Your task to perform on an android device: View the shopping cart on newegg. Search for razer blade on newegg, select the first entry, add it to the cart, then select checkout. Image 0: 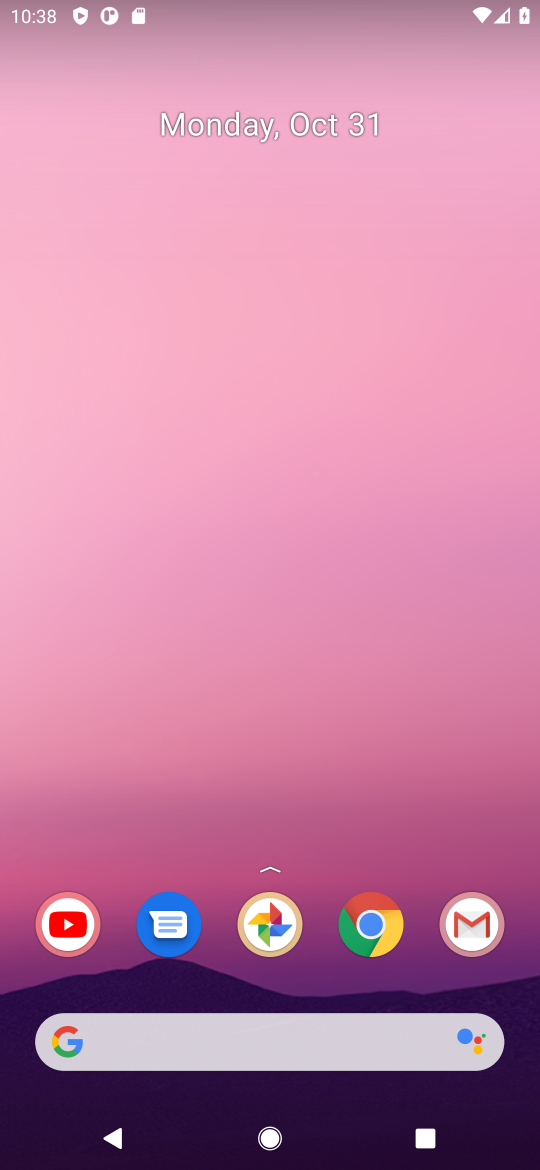
Step 0: press home button
Your task to perform on an android device: View the shopping cart on newegg. Search for razer blade on newegg, select the first entry, add it to the cart, then select checkout. Image 1: 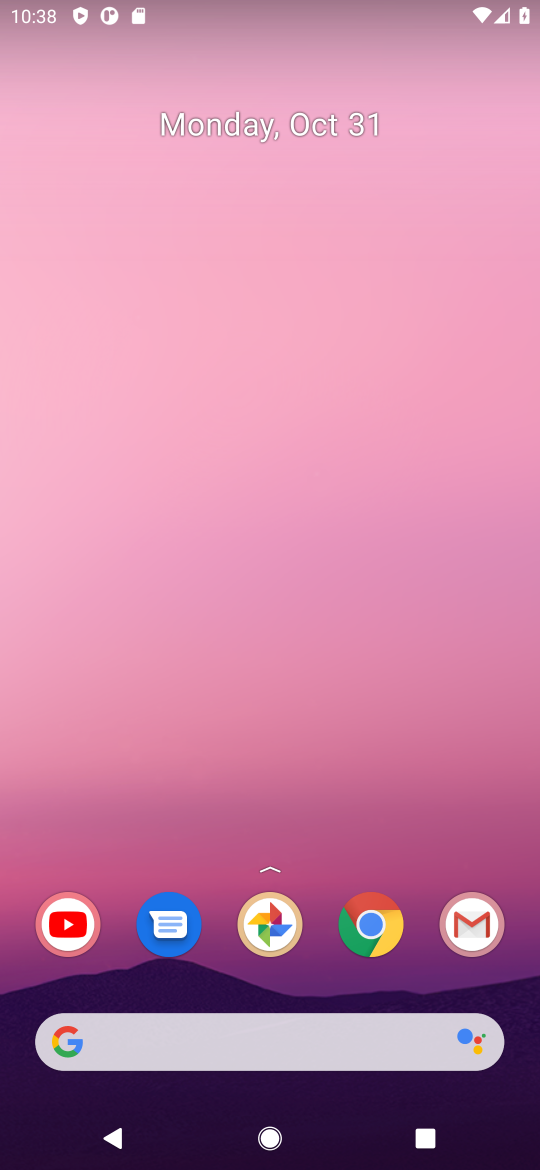
Step 1: click (355, 932)
Your task to perform on an android device: View the shopping cart on newegg. Search for razer blade on newegg, select the first entry, add it to the cart, then select checkout. Image 2: 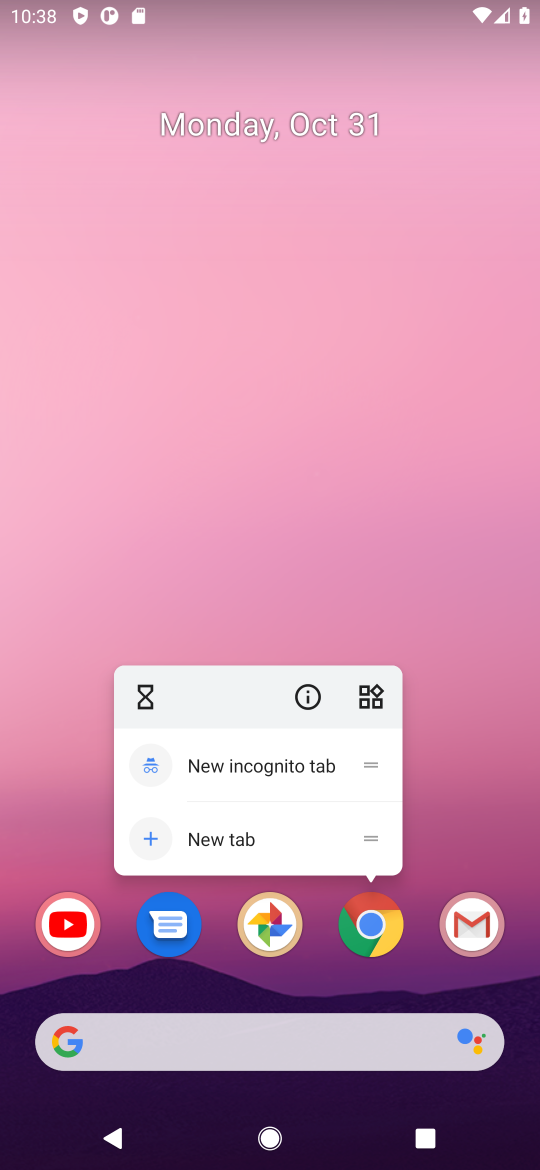
Step 2: click (267, 851)
Your task to perform on an android device: View the shopping cart on newegg. Search for razer blade on newegg, select the first entry, add it to the cart, then select checkout. Image 3: 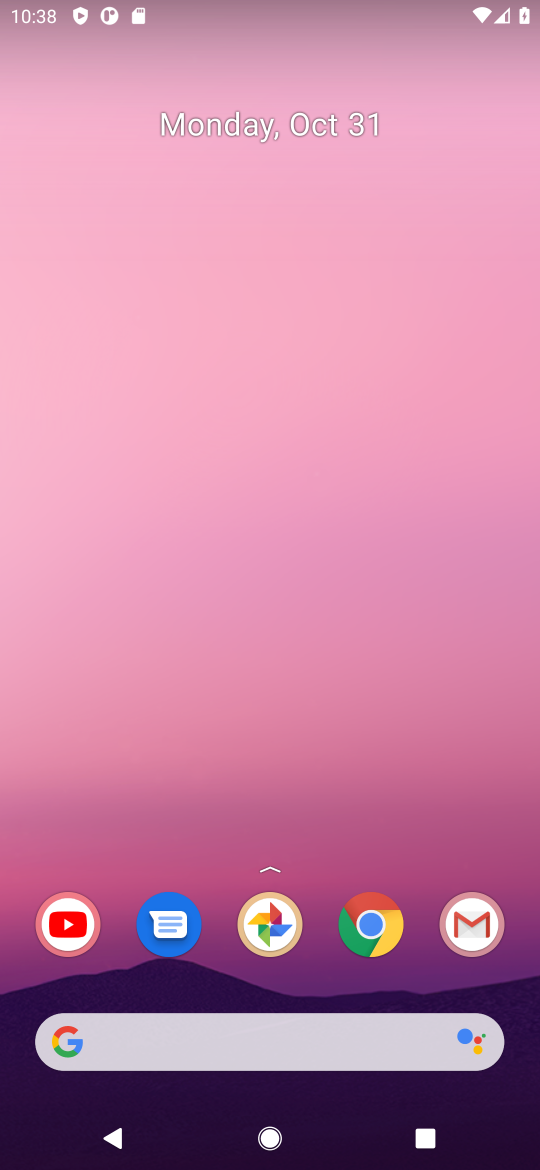
Step 3: click (370, 922)
Your task to perform on an android device: View the shopping cart on newegg. Search for razer blade on newegg, select the first entry, add it to the cart, then select checkout. Image 4: 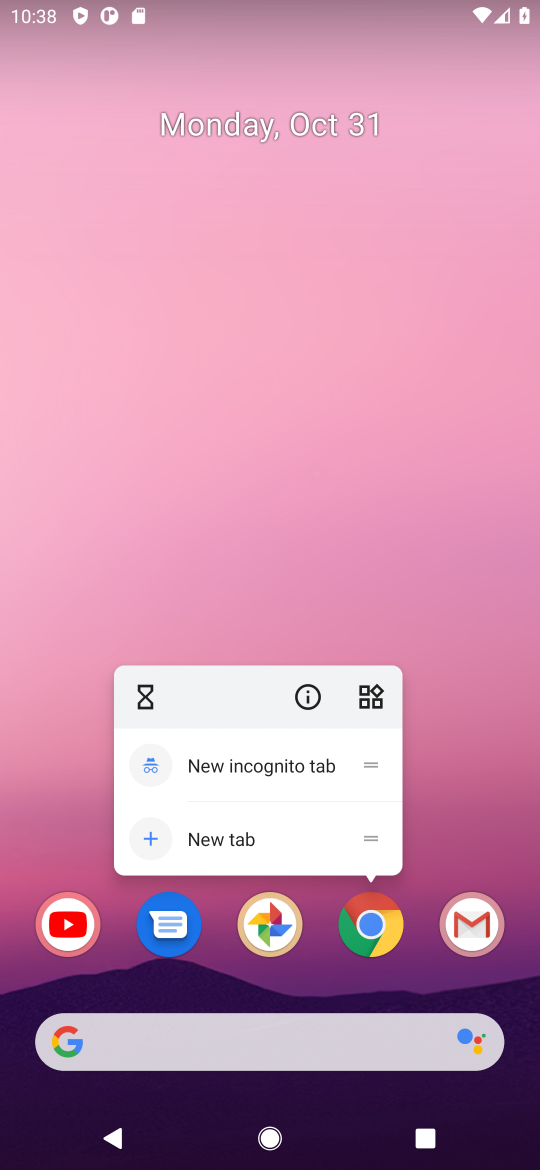
Step 4: click (159, 840)
Your task to perform on an android device: View the shopping cart on newegg. Search for razer blade on newegg, select the first entry, add it to the cart, then select checkout. Image 5: 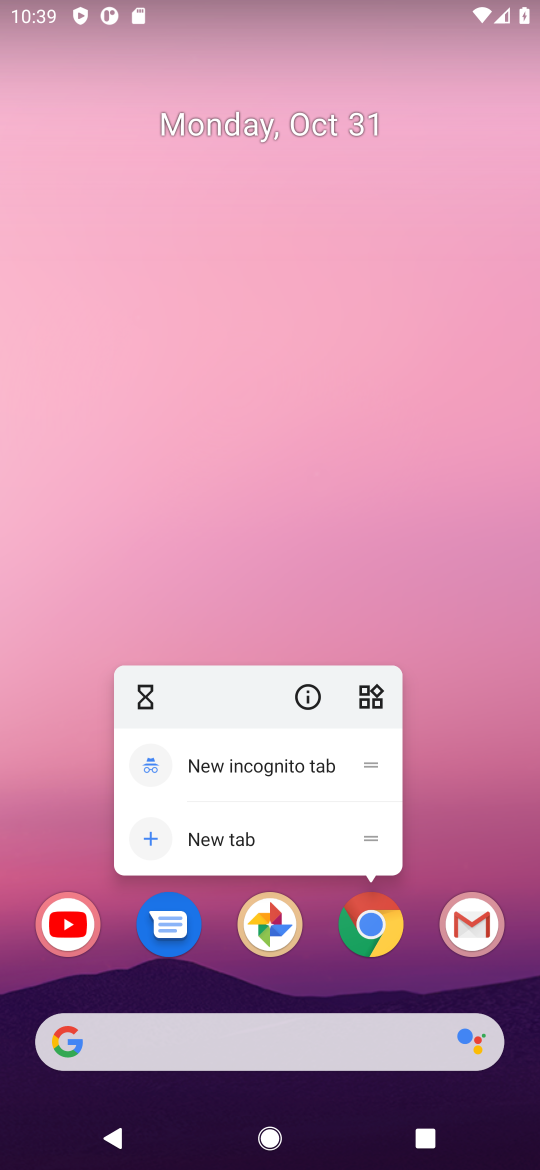
Step 5: click (237, 840)
Your task to perform on an android device: View the shopping cart on newegg. Search for razer blade on newegg, select the first entry, add it to the cart, then select checkout. Image 6: 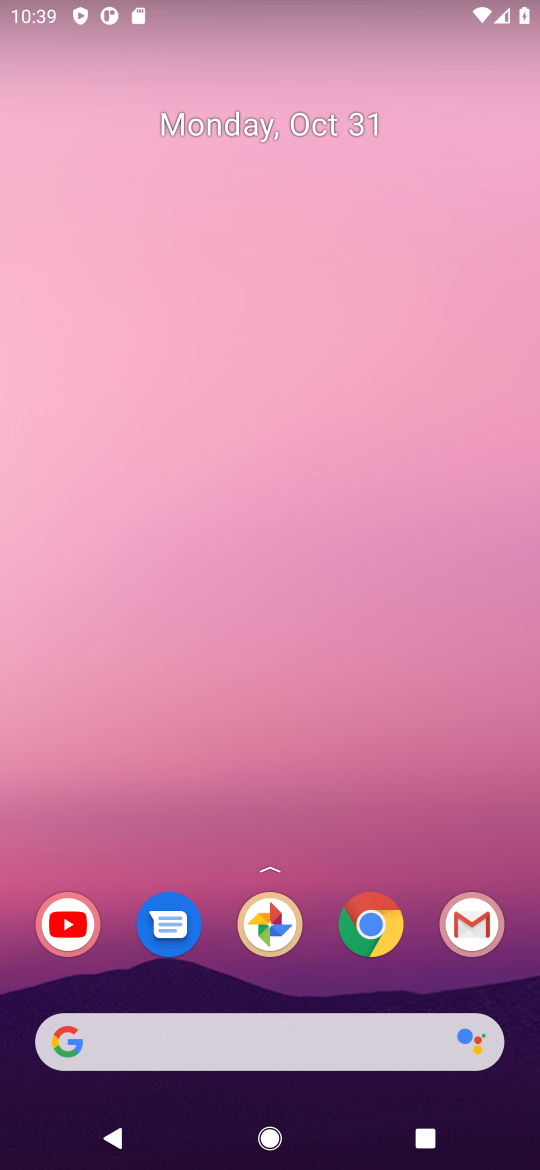
Step 6: press home button
Your task to perform on an android device: View the shopping cart on newegg. Search for razer blade on newegg, select the first entry, add it to the cart, then select checkout. Image 7: 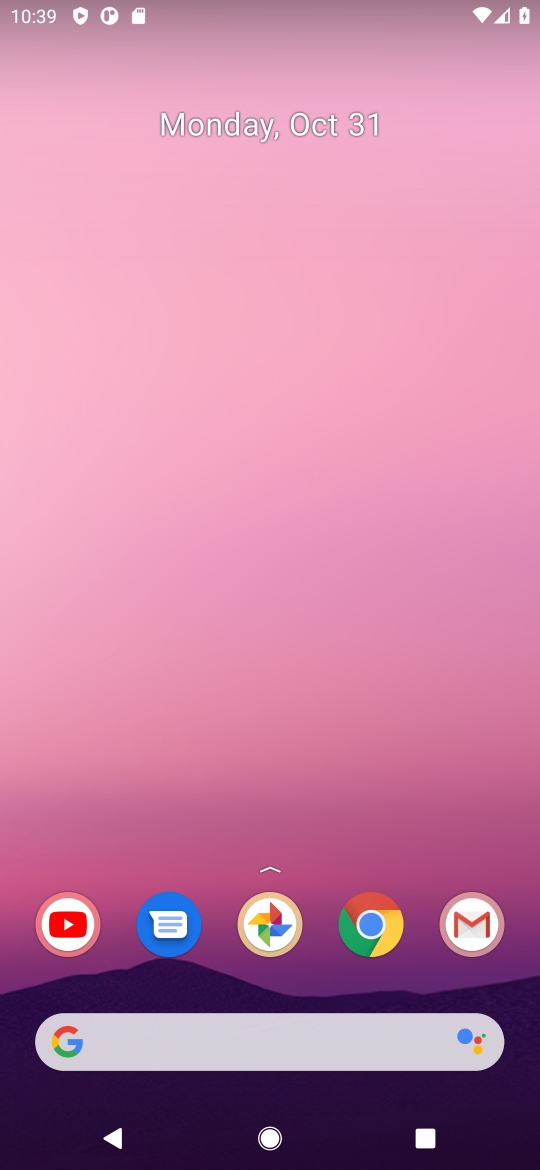
Step 7: press home button
Your task to perform on an android device: View the shopping cart on newegg. Search for razer blade on newegg, select the first entry, add it to the cart, then select checkout. Image 8: 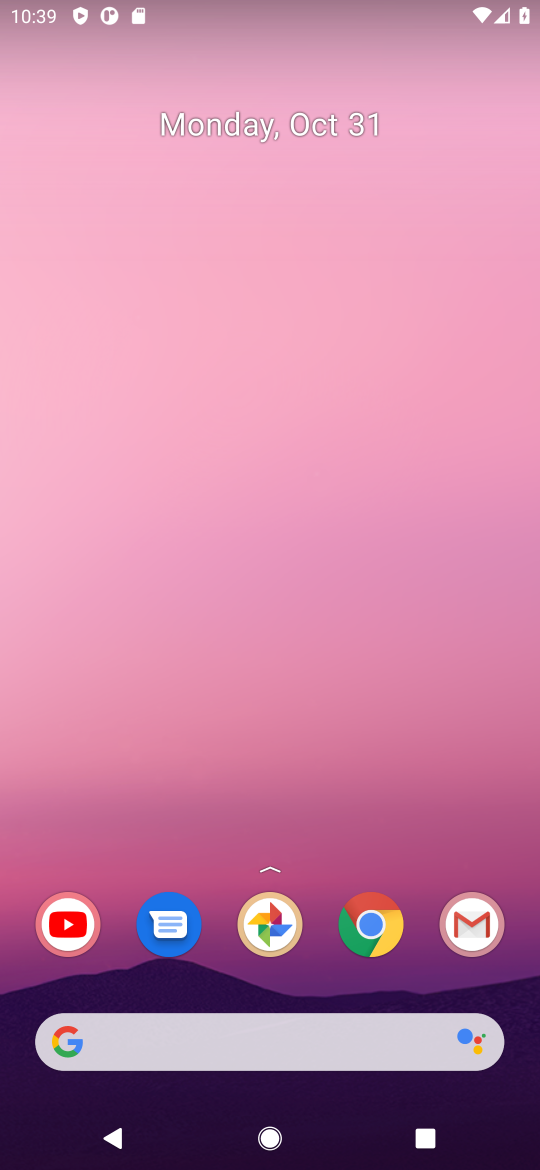
Step 8: click (384, 941)
Your task to perform on an android device: View the shopping cart on newegg. Search for razer blade on newegg, select the first entry, add it to the cart, then select checkout. Image 9: 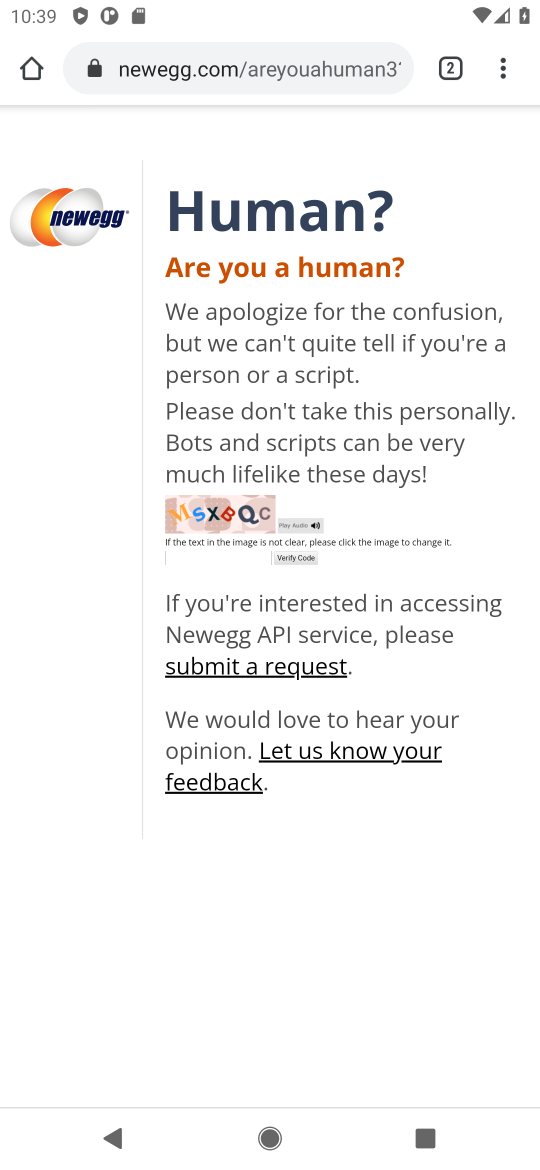
Step 9: click (510, 58)
Your task to perform on an android device: View the shopping cart on newegg. Search for razer blade on newegg, select the first entry, add it to the cart, then select checkout. Image 10: 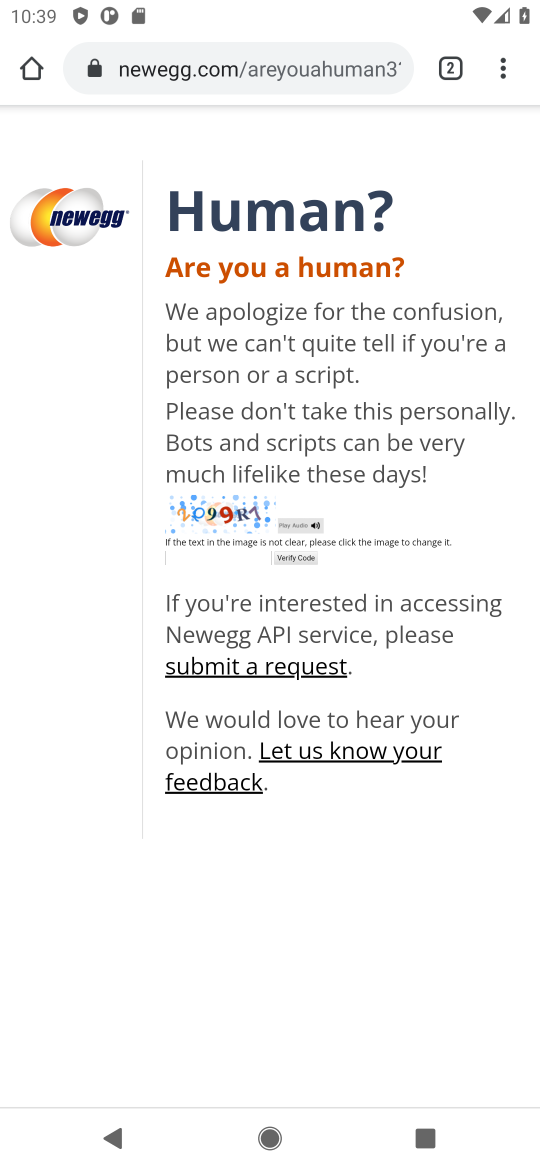
Step 10: click (285, 71)
Your task to perform on an android device: View the shopping cart on newegg. Search for razer blade on newegg, select the first entry, add it to the cart, then select checkout. Image 11: 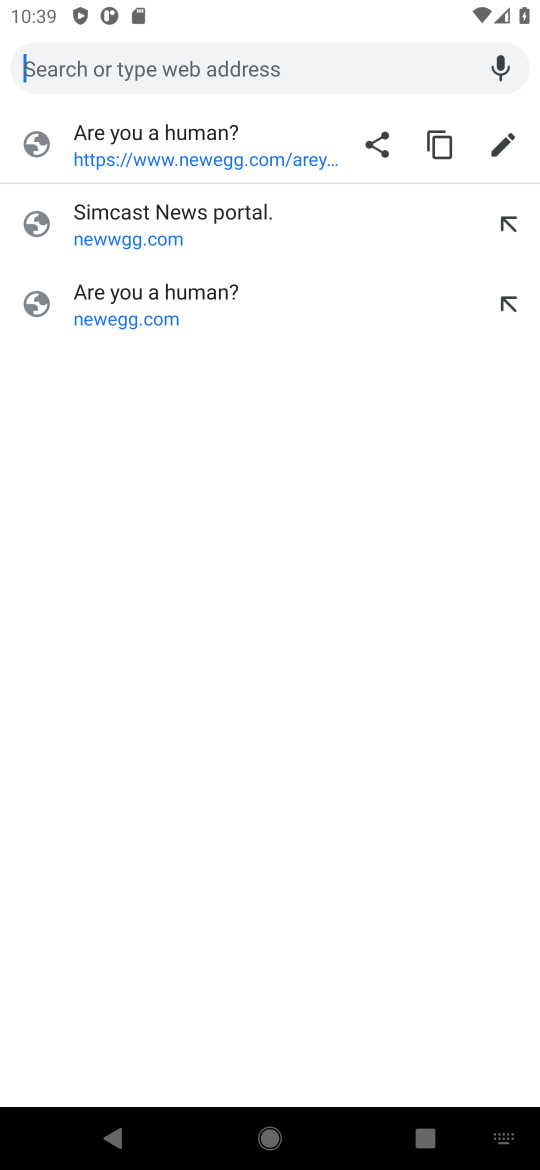
Step 11: type "newegg"
Your task to perform on an android device: View the shopping cart on newegg. Search for razer blade on newegg, select the first entry, add it to the cart, then select checkout. Image 12: 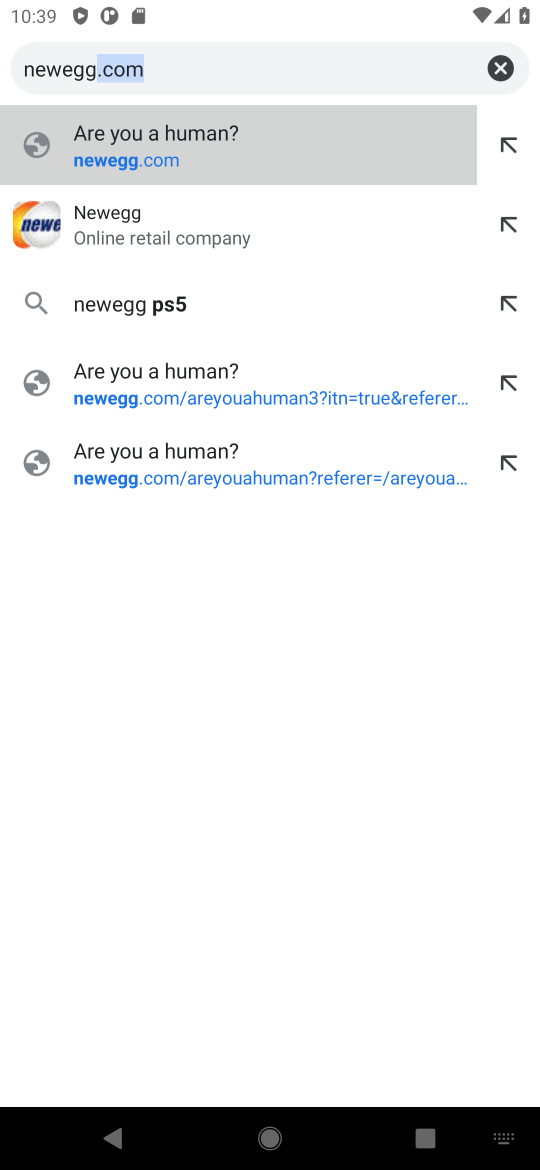
Step 12: click (66, 229)
Your task to perform on an android device: View the shopping cart on newegg. Search for razer blade on newegg, select the first entry, add it to the cart, then select checkout. Image 13: 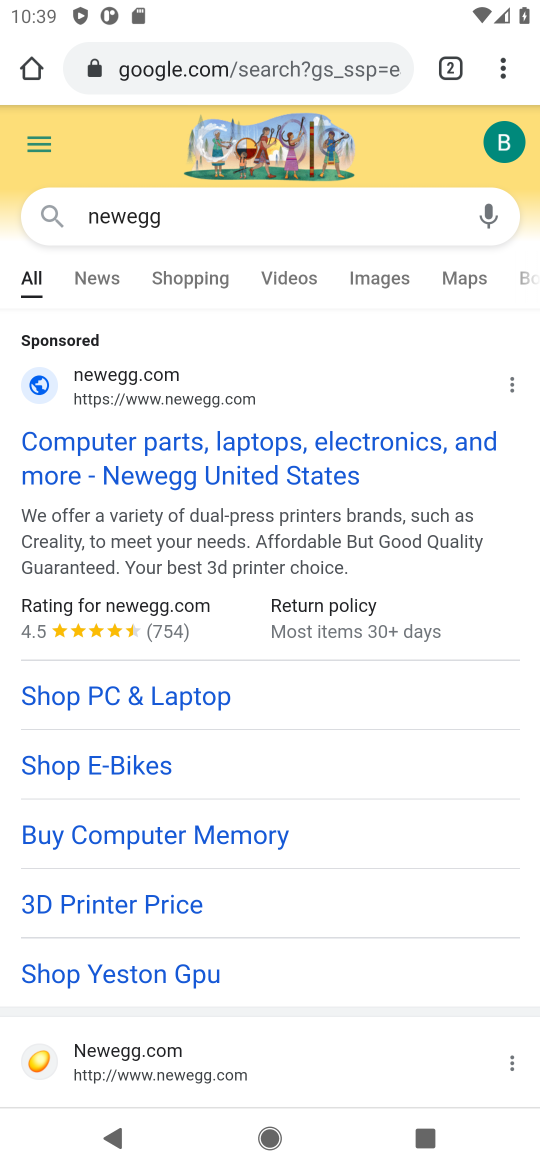
Step 13: click (140, 456)
Your task to perform on an android device: View the shopping cart on newegg. Search for razer blade on newegg, select the first entry, add it to the cart, then select checkout. Image 14: 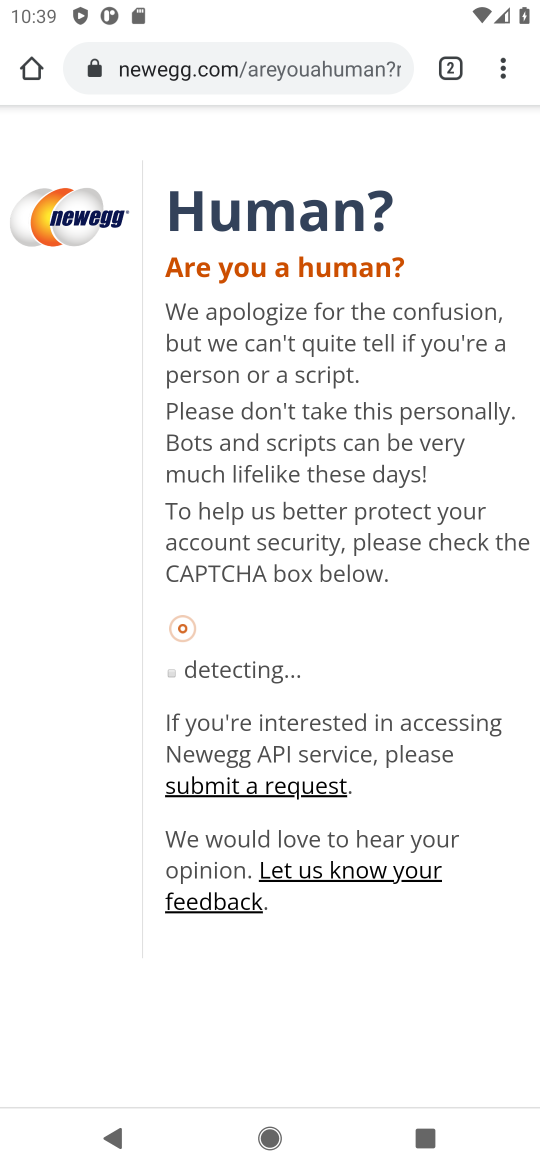
Step 14: press back button
Your task to perform on an android device: View the shopping cart on newegg. Search for razer blade on newegg, select the first entry, add it to the cart, then select checkout. Image 15: 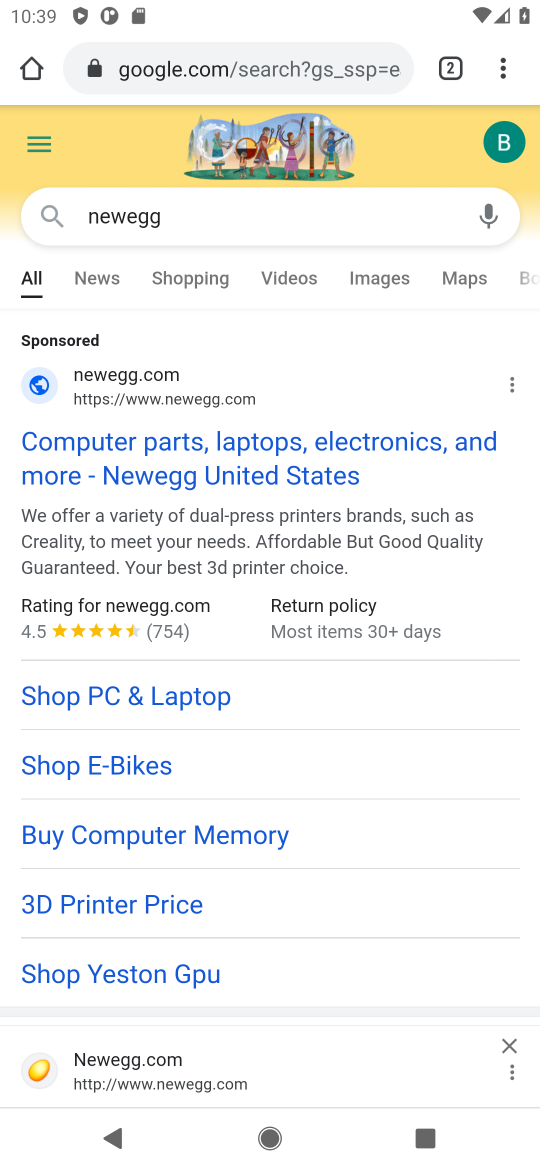
Step 15: drag from (253, 782) to (322, 393)
Your task to perform on an android device: View the shopping cart on newegg. Search for razer blade on newegg, select the first entry, add it to the cart, then select checkout. Image 16: 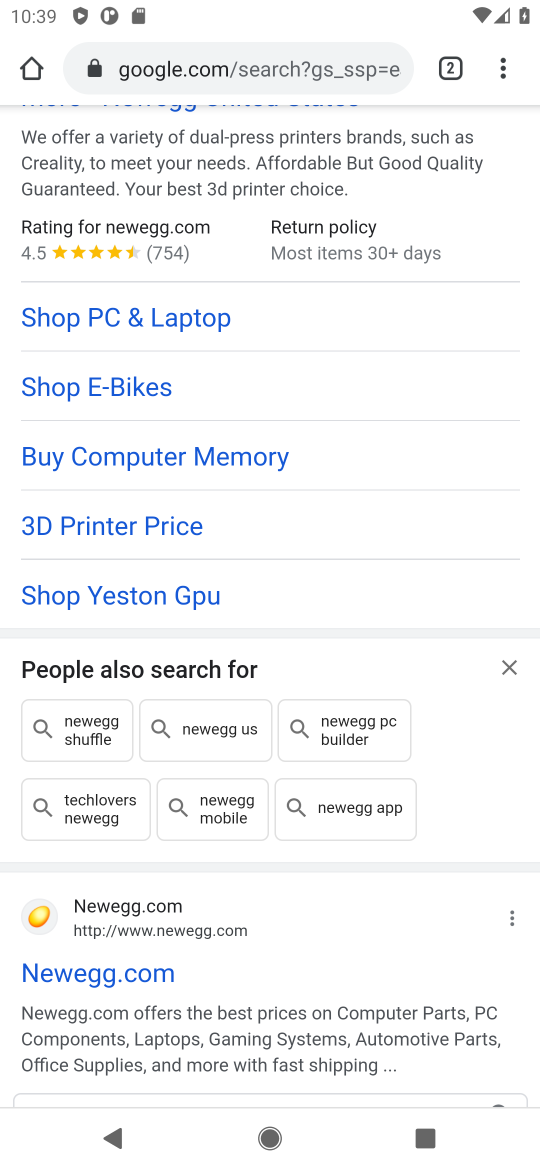
Step 16: drag from (154, 948) to (244, 643)
Your task to perform on an android device: View the shopping cart on newegg. Search for razer blade on newegg, select the first entry, add it to the cart, then select checkout. Image 17: 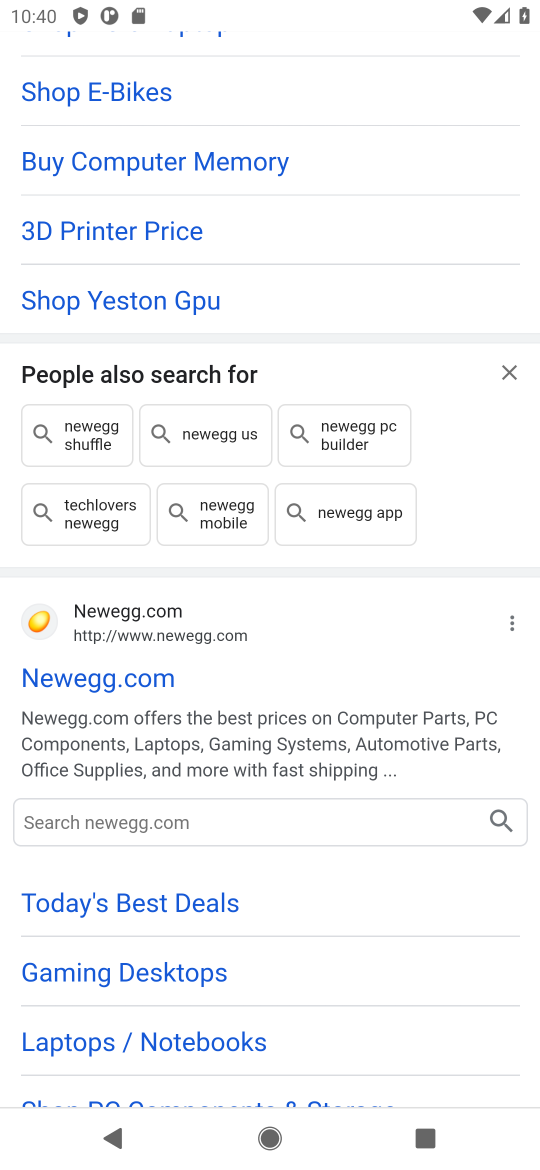
Step 17: click (94, 680)
Your task to perform on an android device: View the shopping cart on newegg. Search for razer blade on newegg, select the first entry, add it to the cart, then select checkout. Image 18: 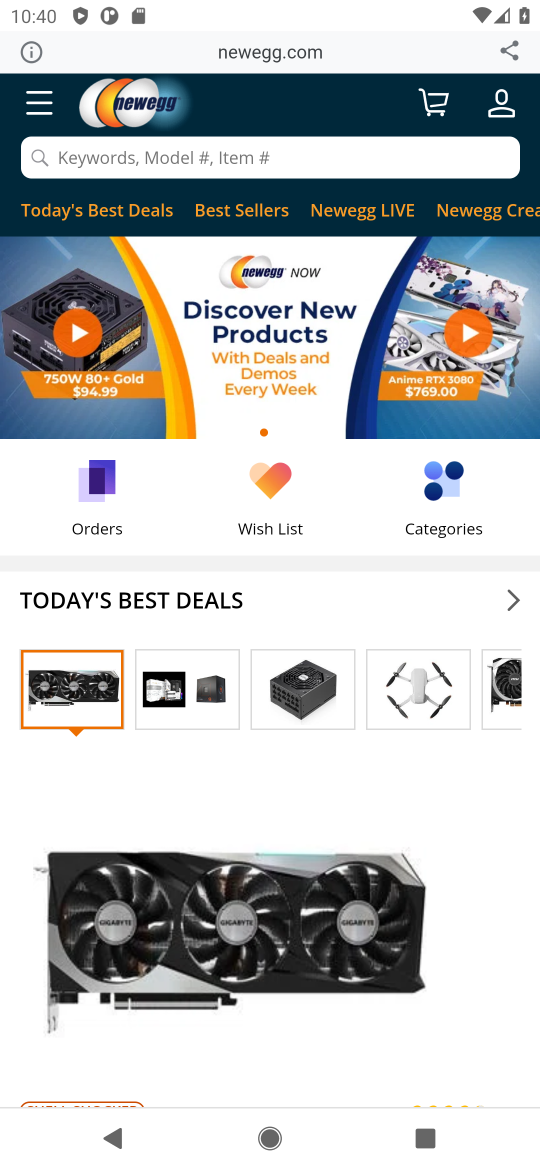
Step 18: click (118, 152)
Your task to perform on an android device: View the shopping cart on newegg. Search for razer blade on newegg, select the first entry, add it to the cart, then select checkout. Image 19: 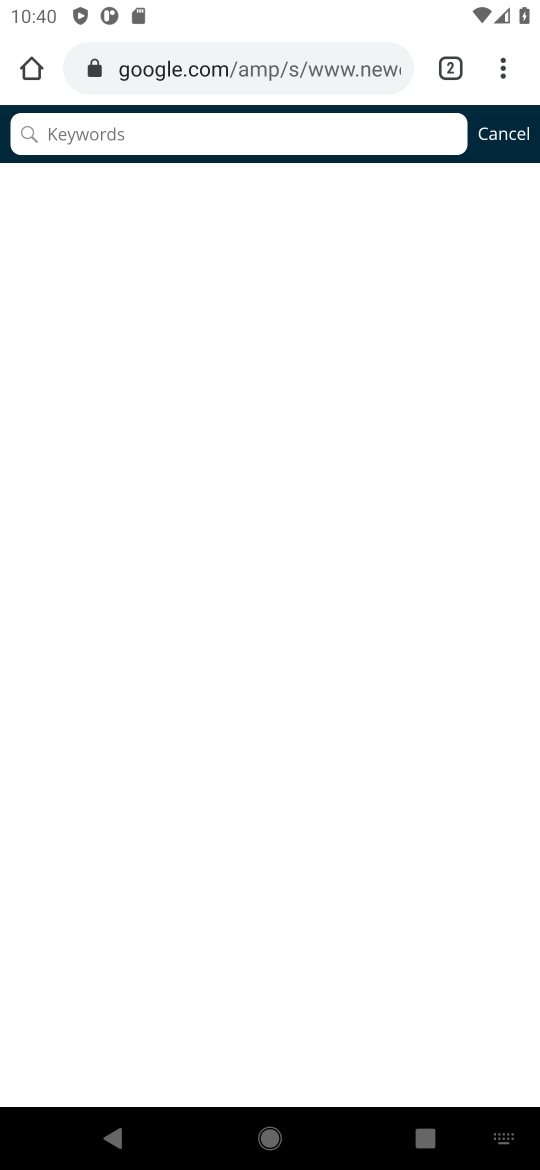
Step 19: type "razer blade"
Your task to perform on an android device: View the shopping cart on newegg. Search for razer blade on newegg, select the first entry, add it to the cart, then select checkout. Image 20: 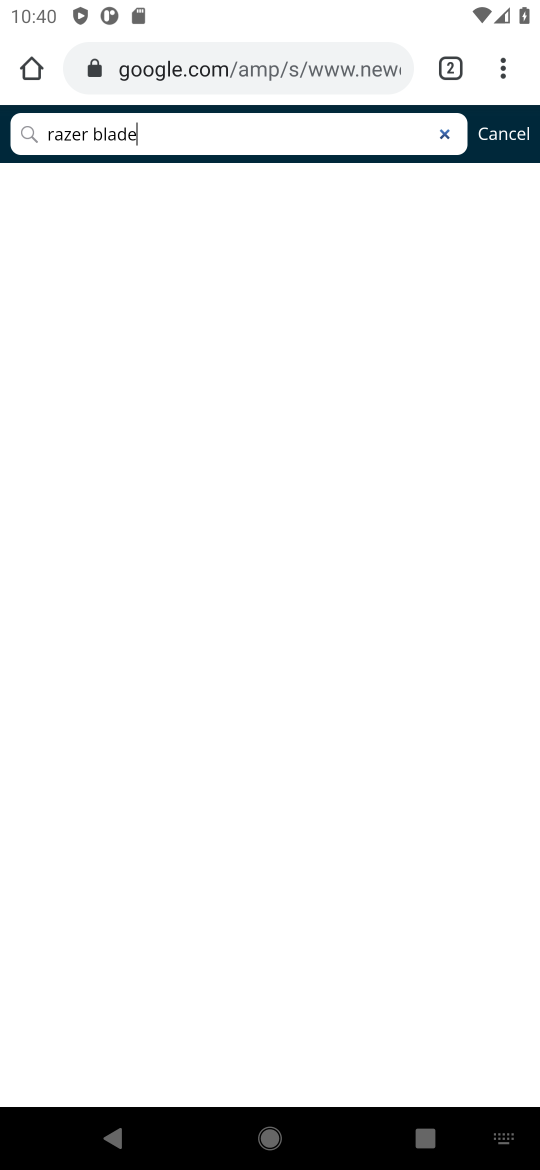
Step 20: click (445, 138)
Your task to perform on an android device: View the shopping cart on newegg. Search for razer blade on newegg, select the first entry, add it to the cart, then select checkout. Image 21: 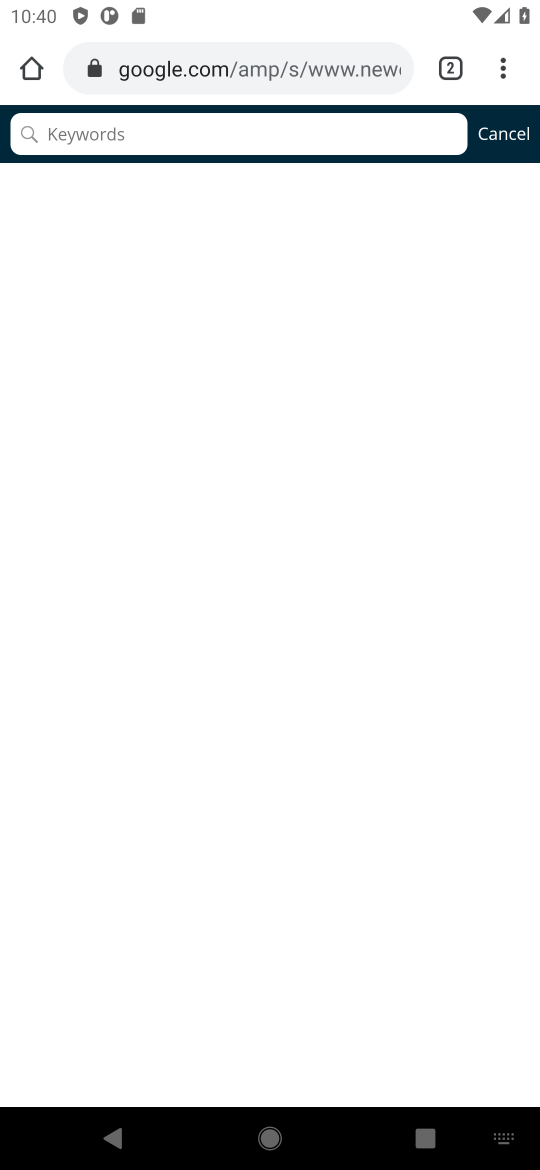
Step 21: type "razer blade"
Your task to perform on an android device: View the shopping cart on newegg. Search for razer blade on newegg, select the first entry, add it to the cart, then select checkout. Image 22: 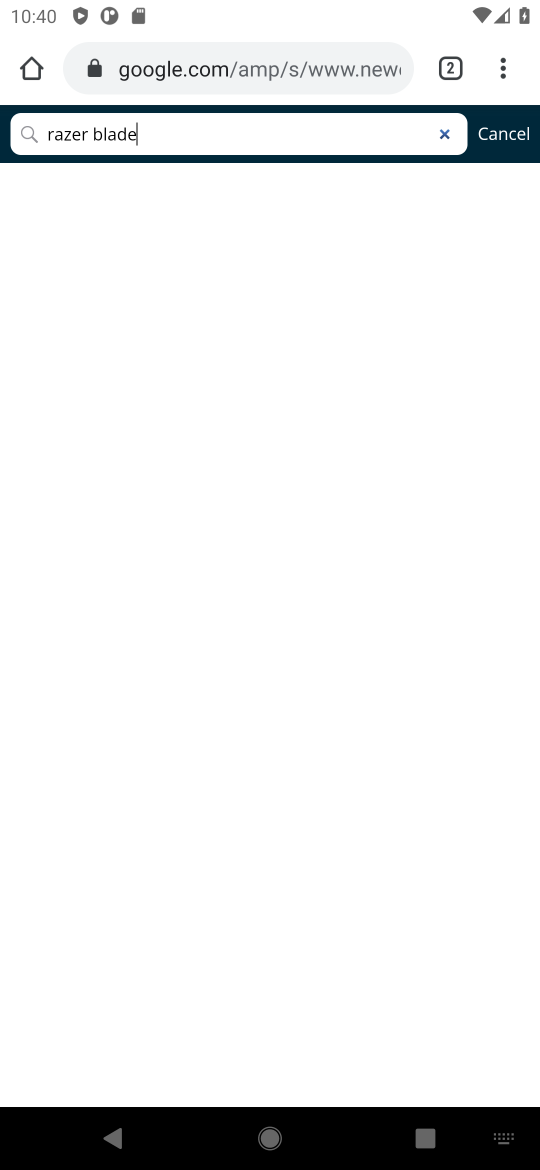
Step 22: type ""
Your task to perform on an android device: View the shopping cart on newegg. Search for razer blade on newegg, select the first entry, add it to the cart, then select checkout. Image 23: 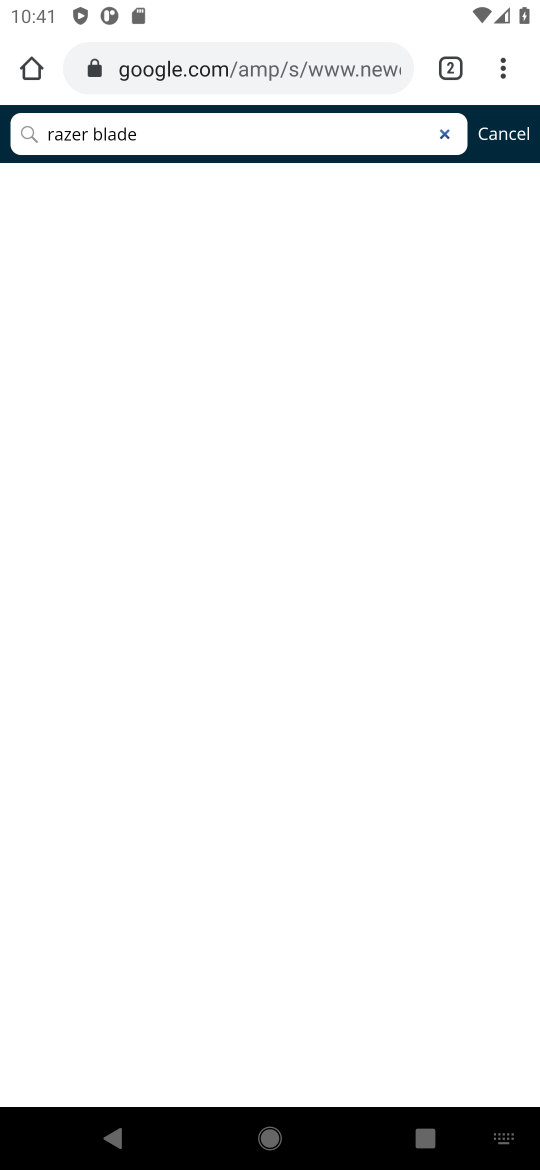
Step 23: click (144, 131)
Your task to perform on an android device: View the shopping cart on newegg. Search for razer blade on newegg, select the first entry, add it to the cart, then select checkout. Image 24: 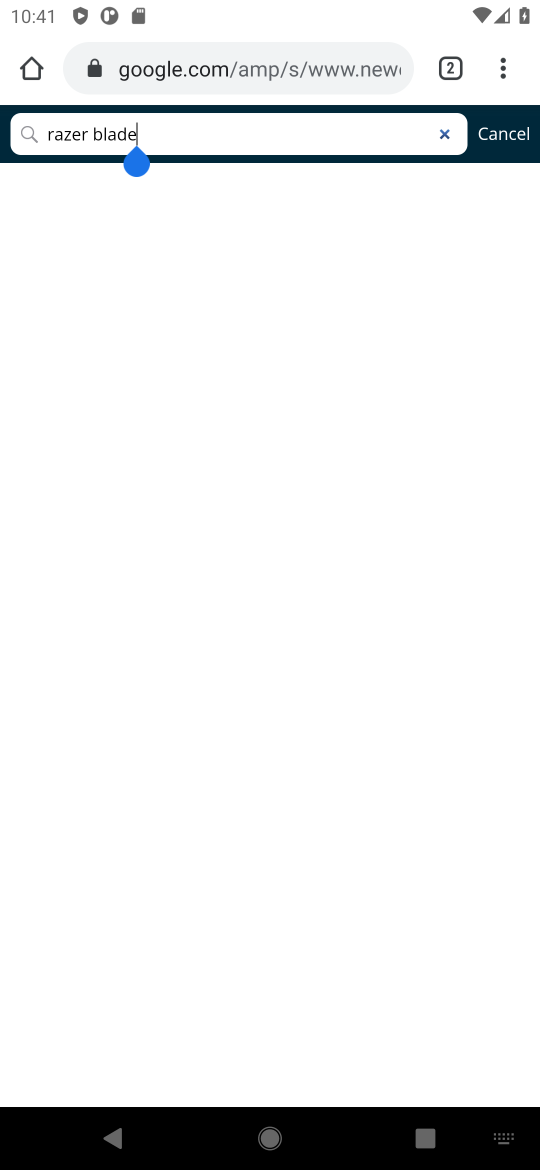
Step 24: press back button
Your task to perform on an android device: View the shopping cart on newegg. Search for razer blade on newegg, select the first entry, add it to the cart, then select checkout. Image 25: 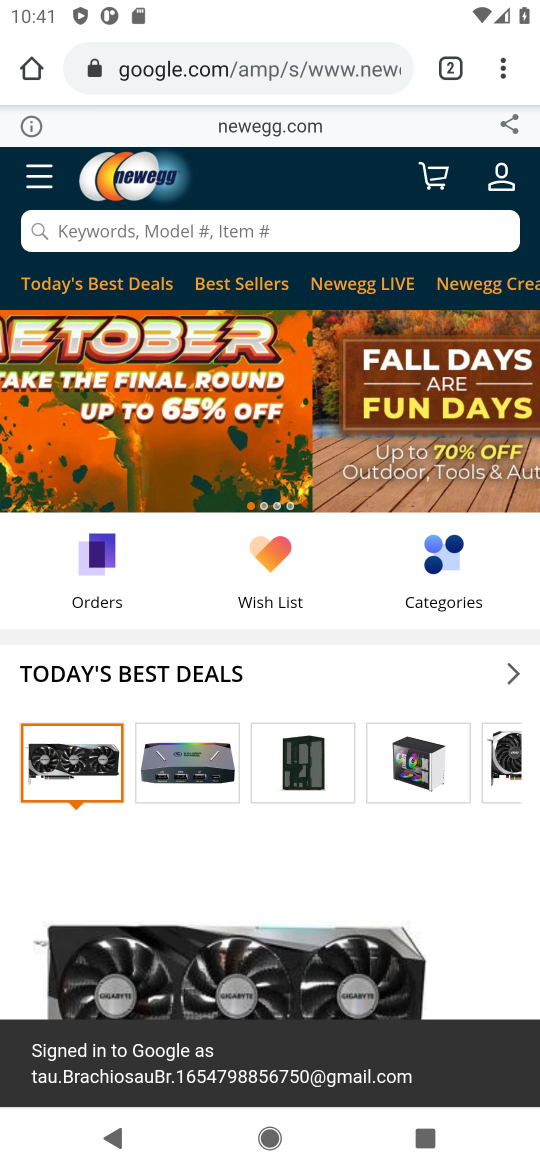
Step 25: press back button
Your task to perform on an android device: View the shopping cart on newegg. Search for razer blade on newegg, select the first entry, add it to the cart, then select checkout. Image 26: 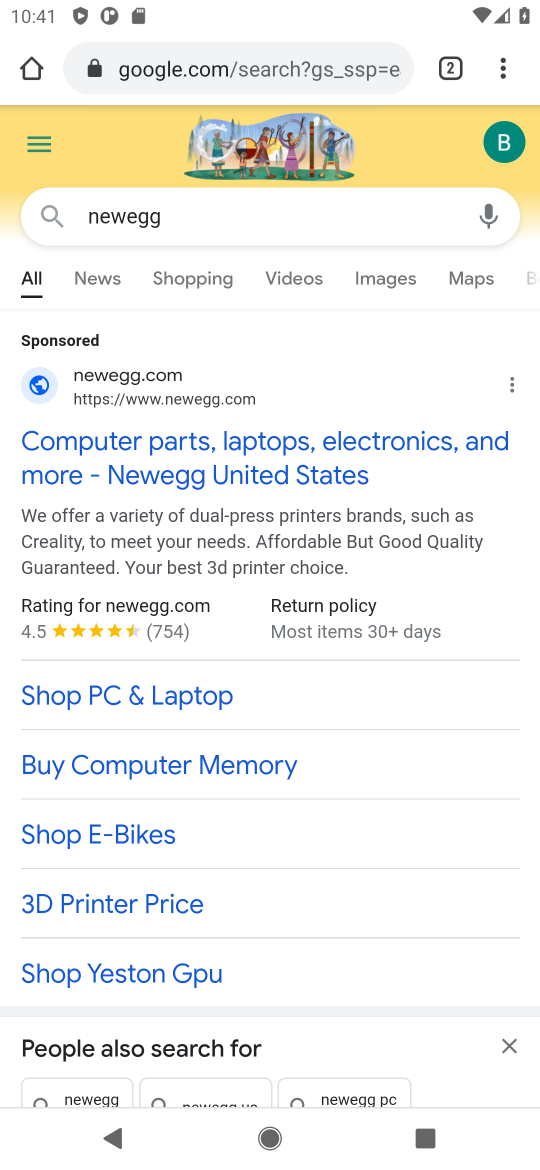
Step 26: drag from (196, 882) to (281, 414)
Your task to perform on an android device: View the shopping cart on newegg. Search for razer blade on newegg, select the first entry, add it to the cart, then select checkout. Image 27: 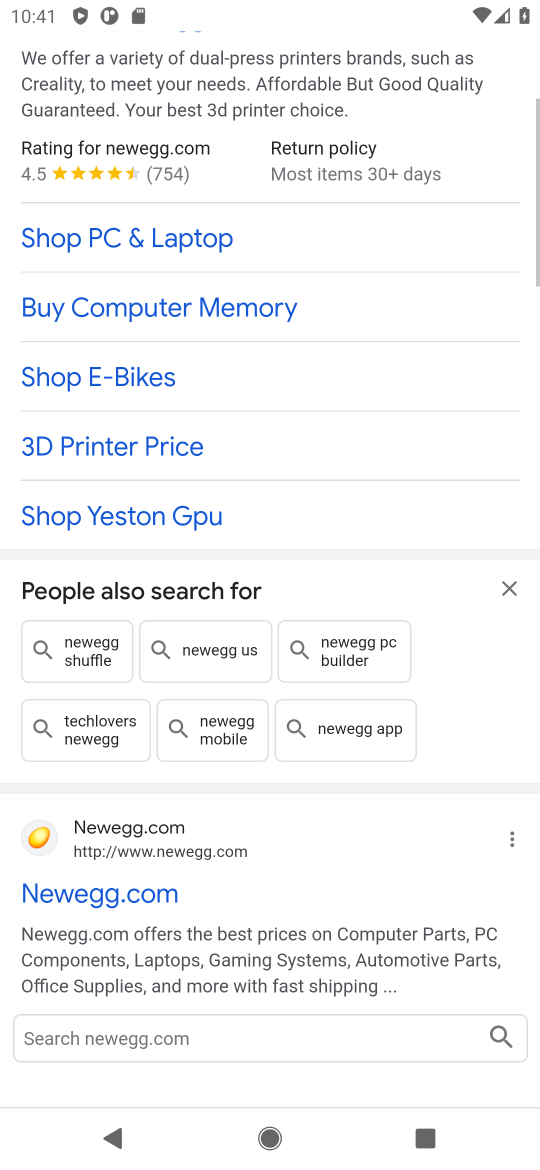
Step 27: drag from (241, 901) to (308, 635)
Your task to perform on an android device: View the shopping cart on newegg. Search for razer blade on newegg, select the first entry, add it to the cart, then select checkout. Image 28: 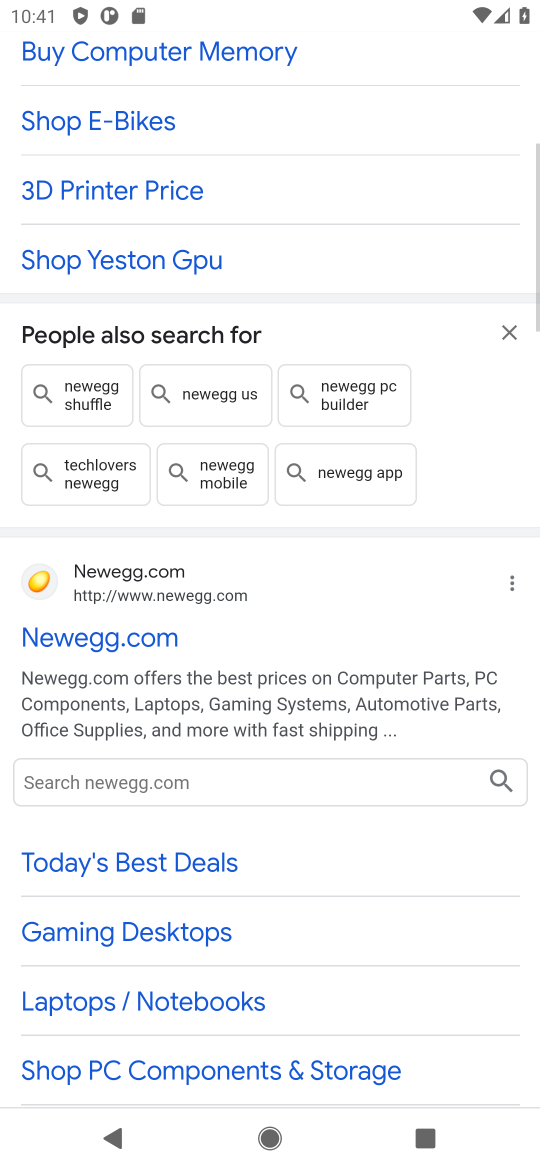
Step 28: drag from (202, 1002) to (300, 588)
Your task to perform on an android device: View the shopping cart on newegg. Search for razer blade on newegg, select the first entry, add it to the cart, then select checkout. Image 29: 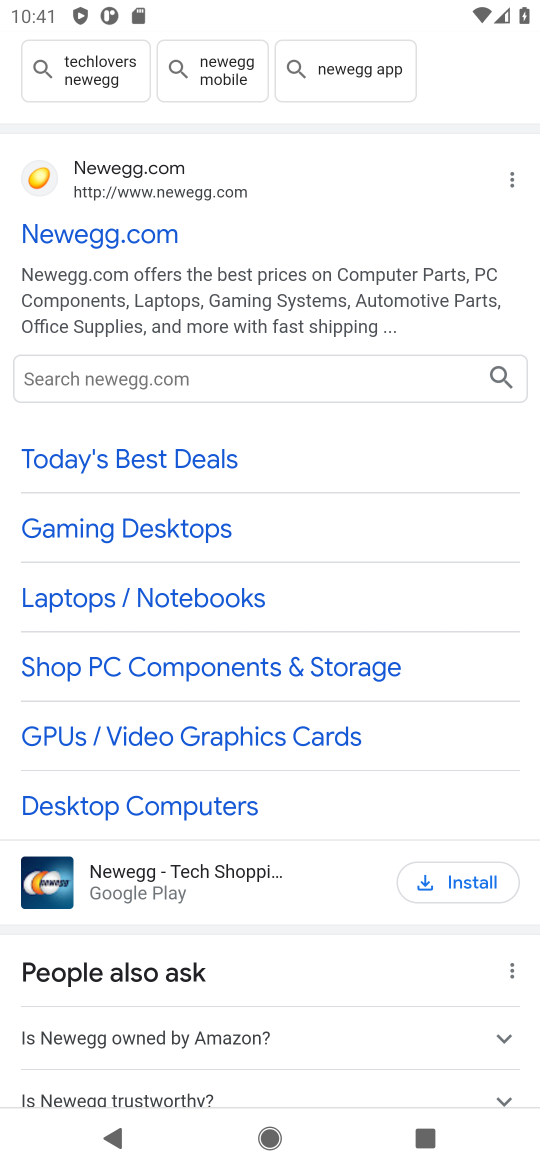
Step 29: drag from (223, 955) to (307, 698)
Your task to perform on an android device: View the shopping cart on newegg. Search for razer blade on newegg, select the first entry, add it to the cart, then select checkout. Image 30: 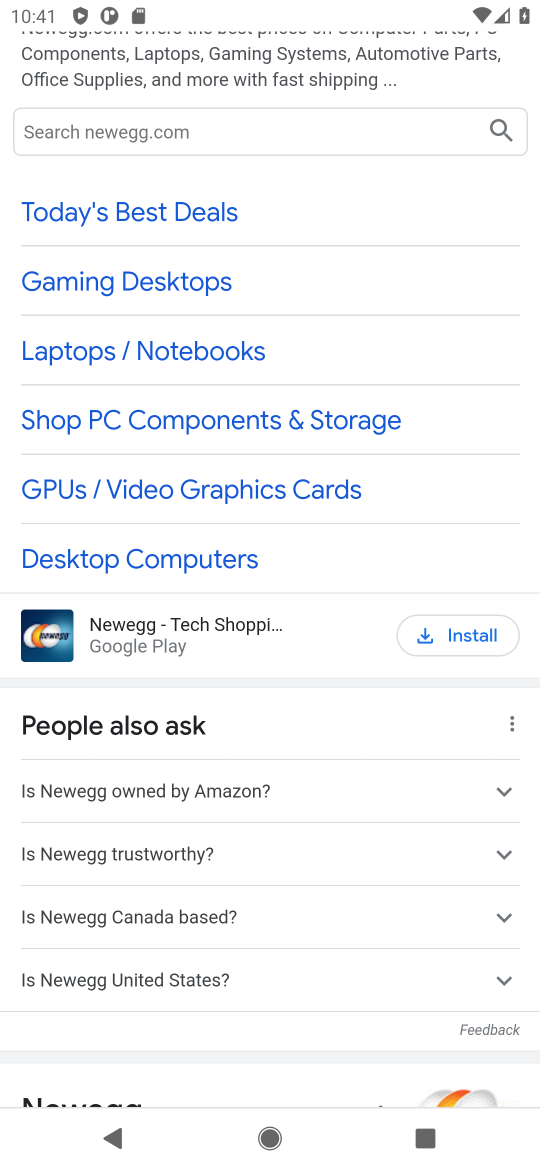
Step 30: drag from (215, 913) to (288, 631)
Your task to perform on an android device: View the shopping cart on newegg. Search for razer blade on newegg, select the first entry, add it to the cart, then select checkout. Image 31: 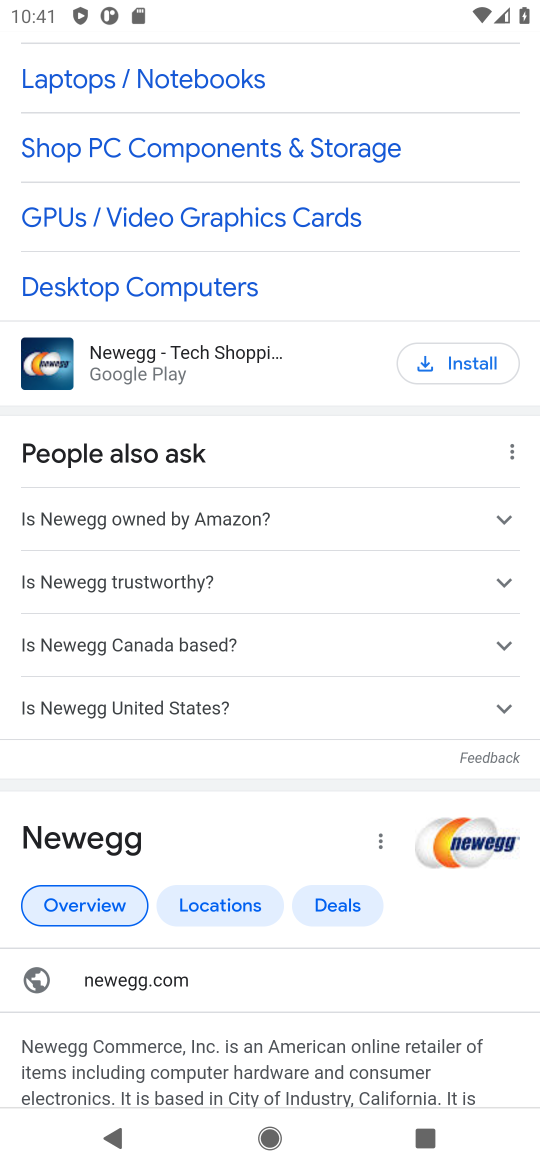
Step 31: drag from (324, 906) to (372, 619)
Your task to perform on an android device: View the shopping cart on newegg. Search for razer blade on newegg, select the first entry, add it to the cart, then select checkout. Image 32: 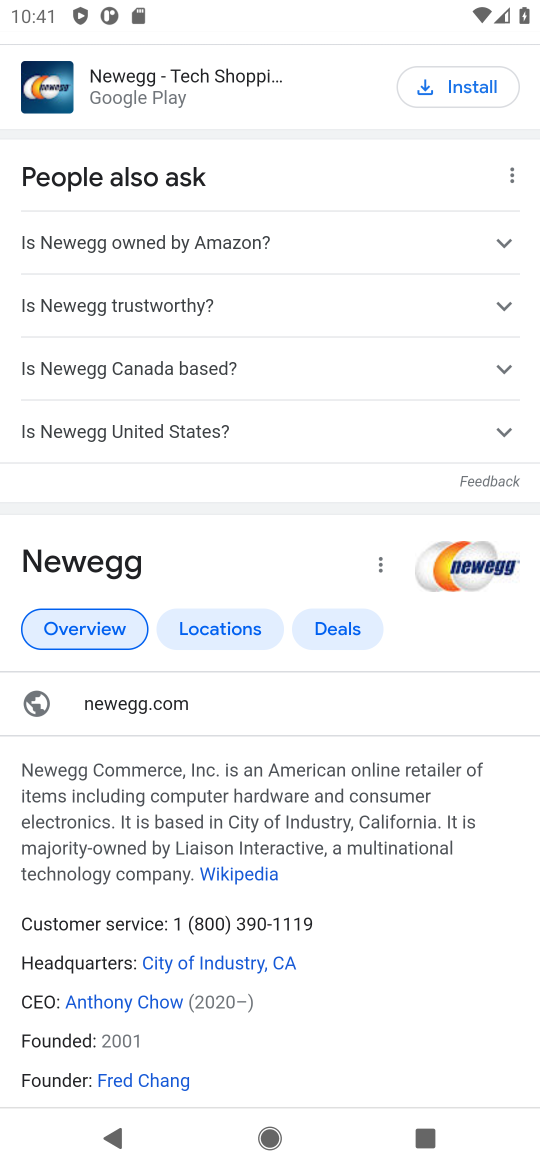
Step 32: drag from (252, 1001) to (318, 861)
Your task to perform on an android device: View the shopping cart on newegg. Search for razer blade on newegg, select the first entry, add it to the cart, then select checkout. Image 33: 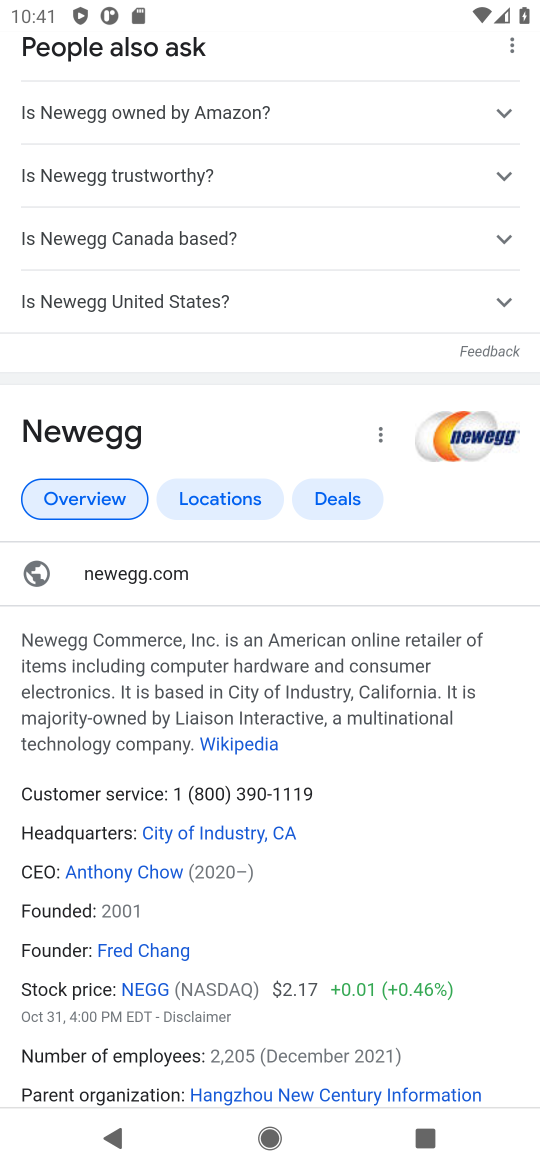
Step 33: click (99, 425)
Your task to perform on an android device: View the shopping cart on newegg. Search for razer blade on newegg, select the first entry, add it to the cart, then select checkout. Image 34: 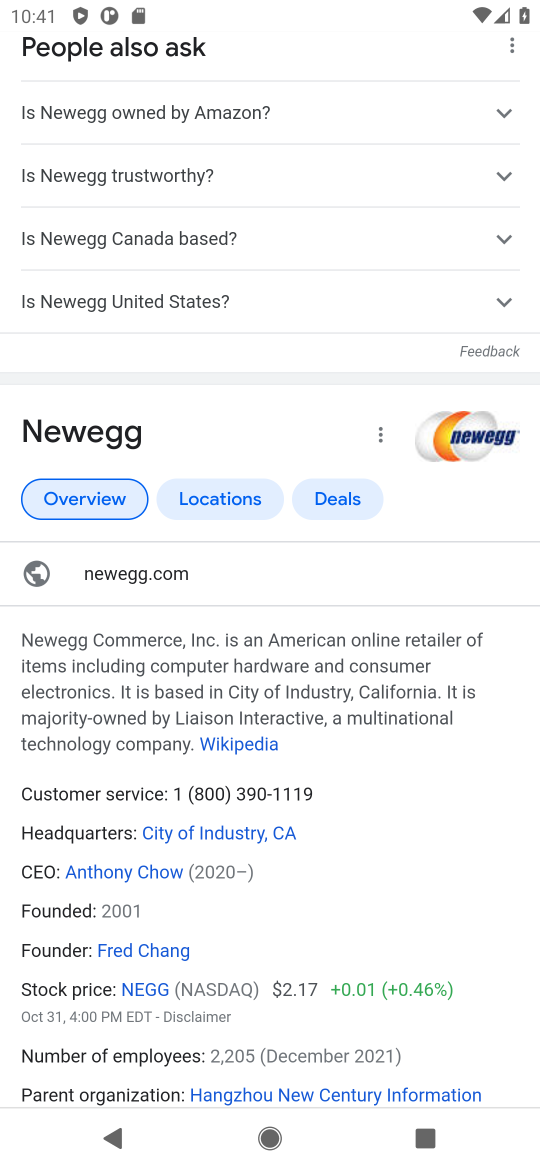
Step 34: click (464, 449)
Your task to perform on an android device: View the shopping cart on newegg. Search for razer blade on newegg, select the first entry, add it to the cart, then select checkout. Image 35: 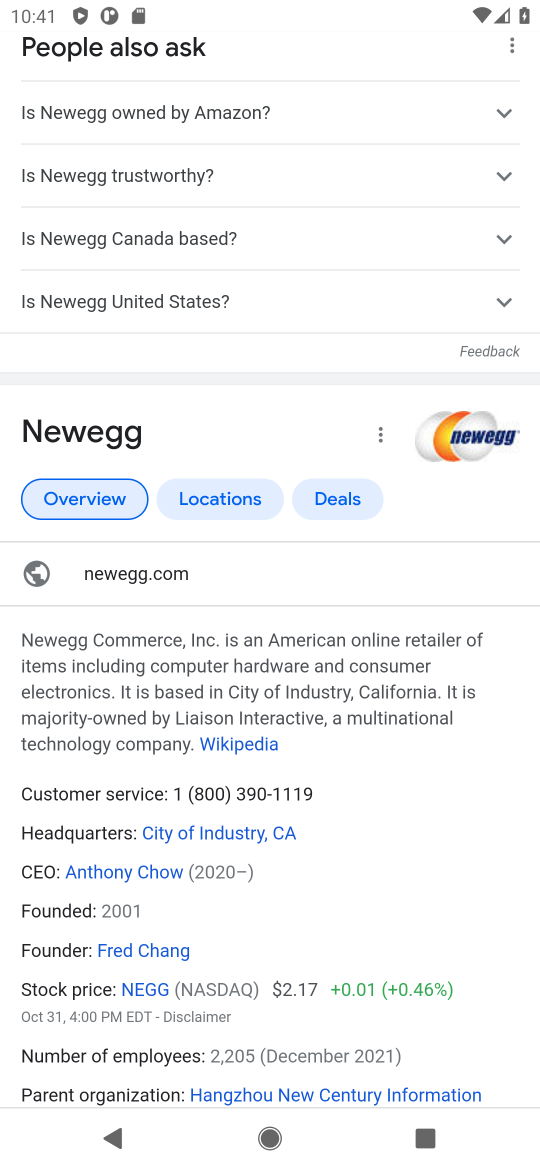
Step 35: drag from (279, 518) to (281, 801)
Your task to perform on an android device: View the shopping cart on newegg. Search for razer blade on newegg, select the first entry, add it to the cart, then select checkout. Image 36: 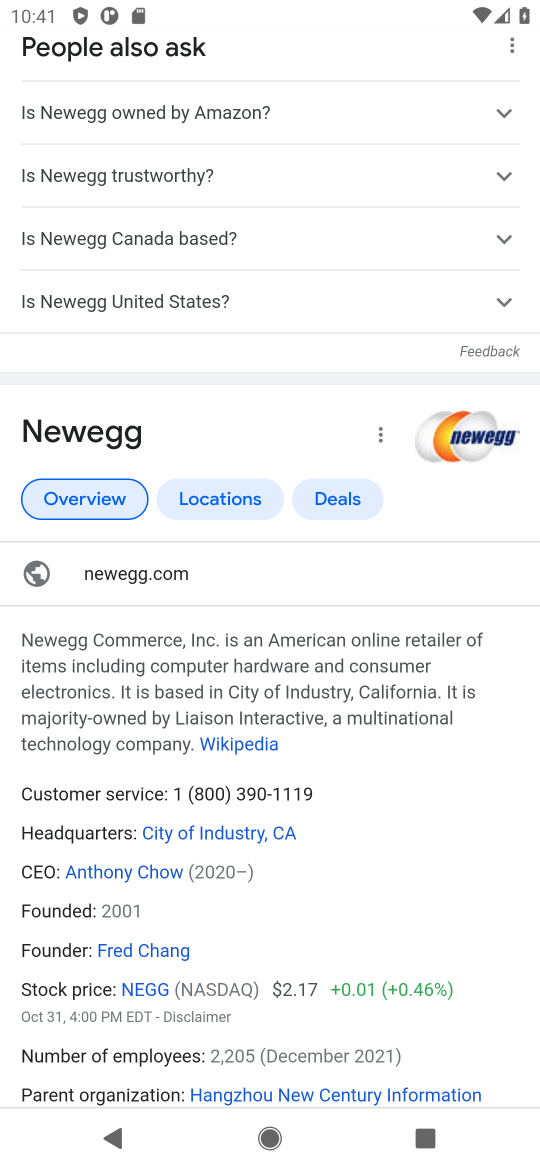
Step 36: drag from (311, 426) to (325, 885)
Your task to perform on an android device: View the shopping cart on newegg. Search for razer blade on newegg, select the first entry, add it to the cart, then select checkout. Image 37: 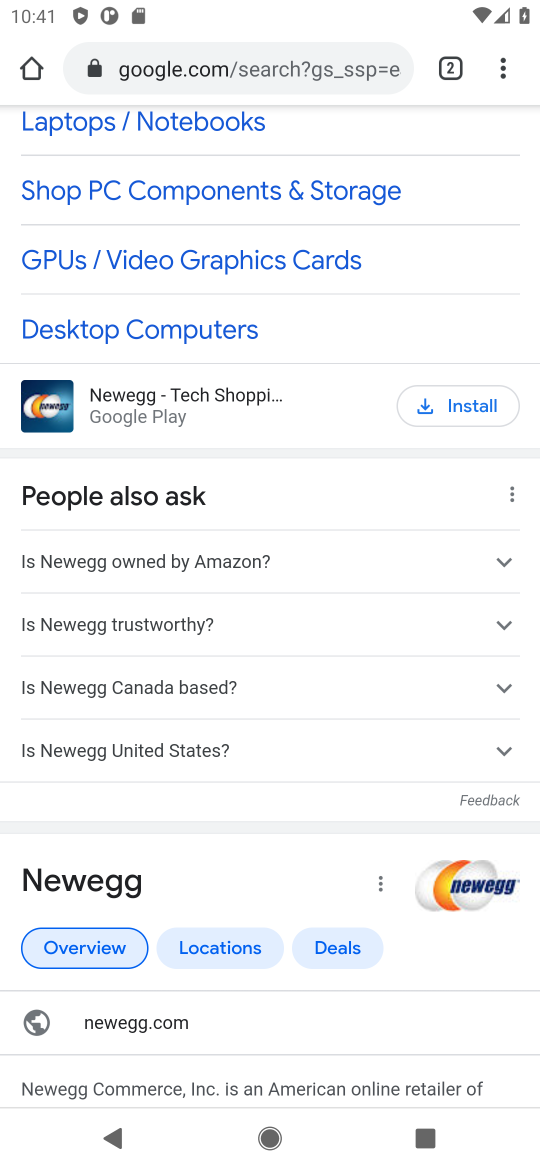
Step 37: drag from (333, 424) to (310, 872)
Your task to perform on an android device: View the shopping cart on newegg. Search for razer blade on newegg, select the first entry, add it to the cart, then select checkout. Image 38: 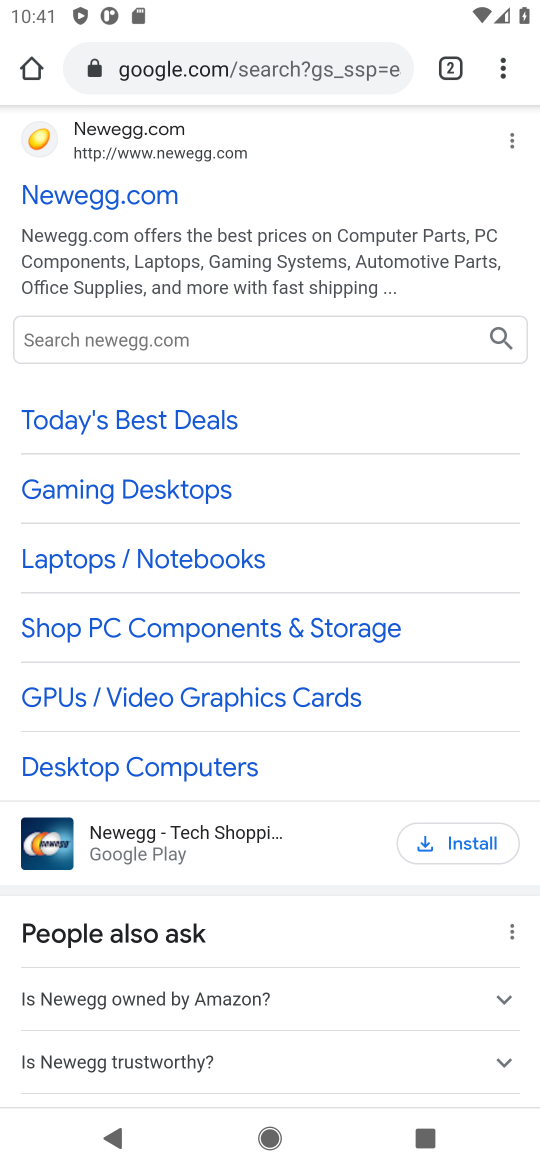
Step 38: click (118, 189)
Your task to perform on an android device: View the shopping cart on newegg. Search for razer blade on newegg, select the first entry, add it to the cart, then select checkout. Image 39: 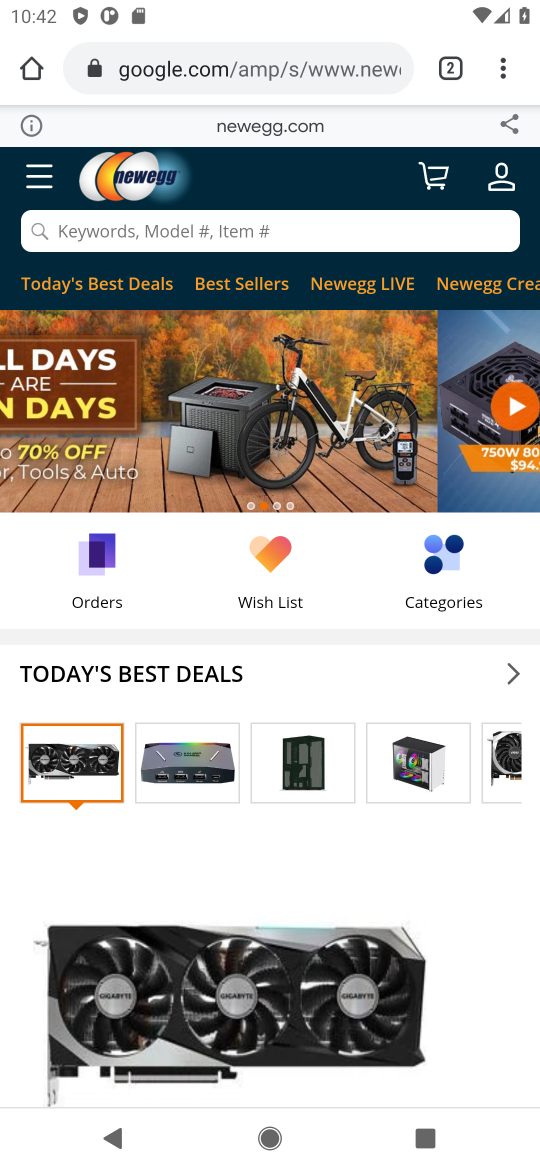
Step 39: click (123, 236)
Your task to perform on an android device: View the shopping cart on newegg. Search for razer blade on newegg, select the first entry, add it to the cart, then select checkout. Image 40: 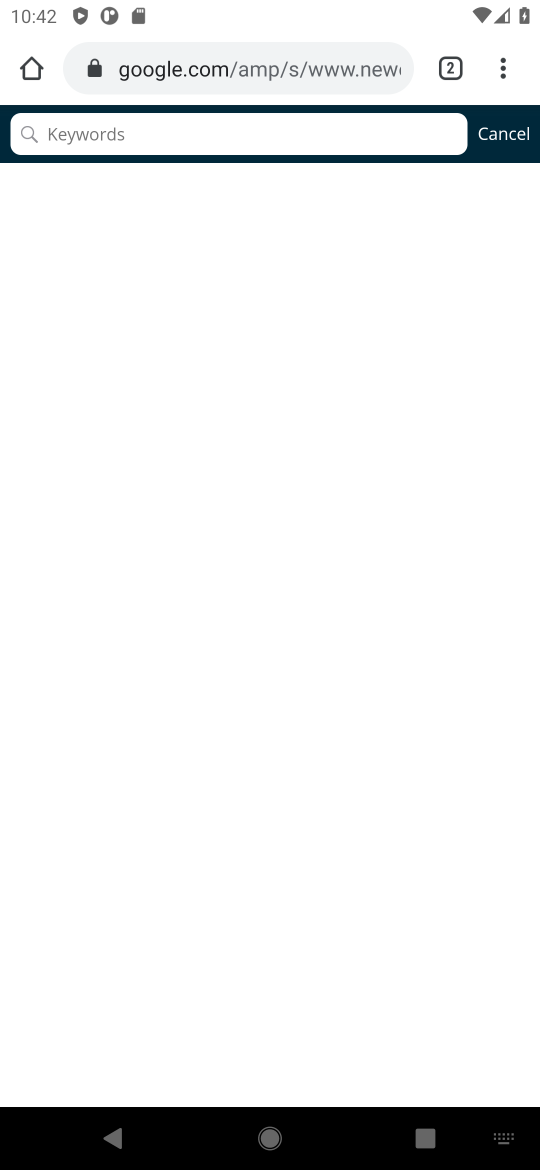
Step 40: type "razer blade"
Your task to perform on an android device: View the shopping cart on newegg. Search for razer blade on newegg, select the first entry, add it to the cart, then select checkout. Image 41: 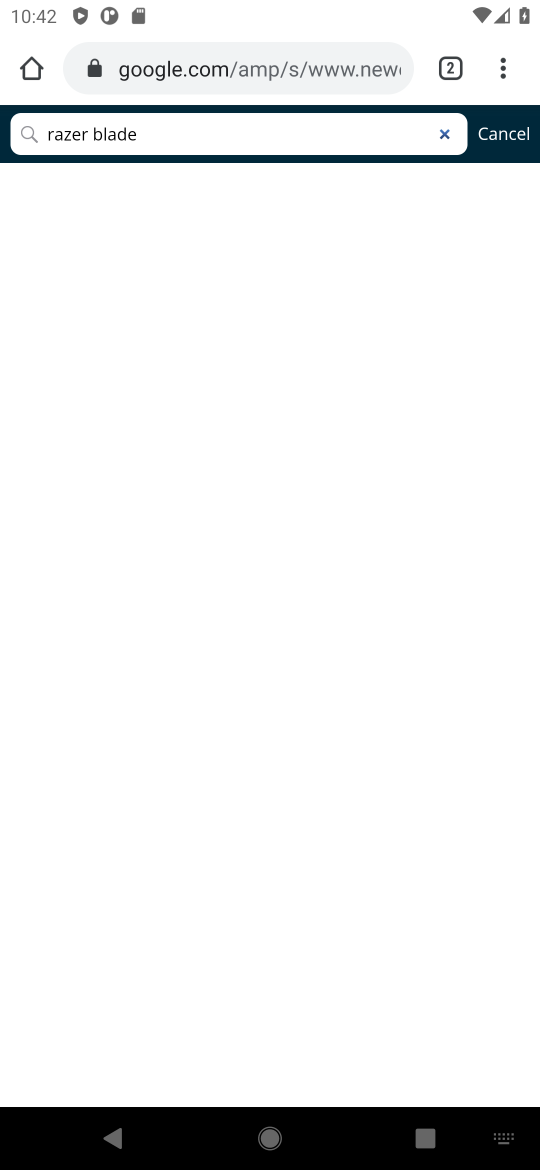
Step 41: task complete